Your task to perform on an android device: empty trash in google photos Image 0: 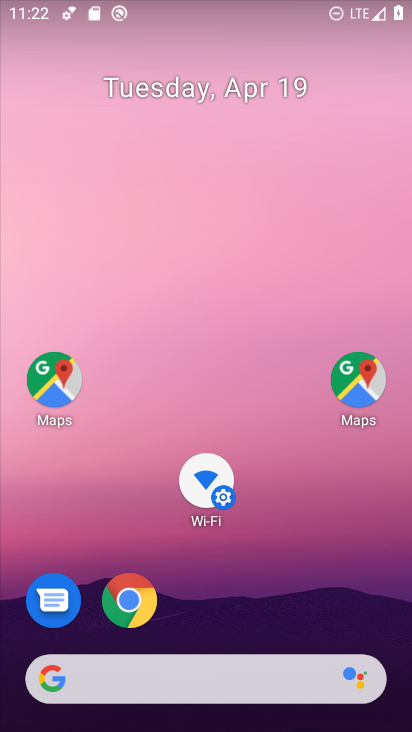
Step 0: drag from (326, 510) to (354, 5)
Your task to perform on an android device: empty trash in google photos Image 1: 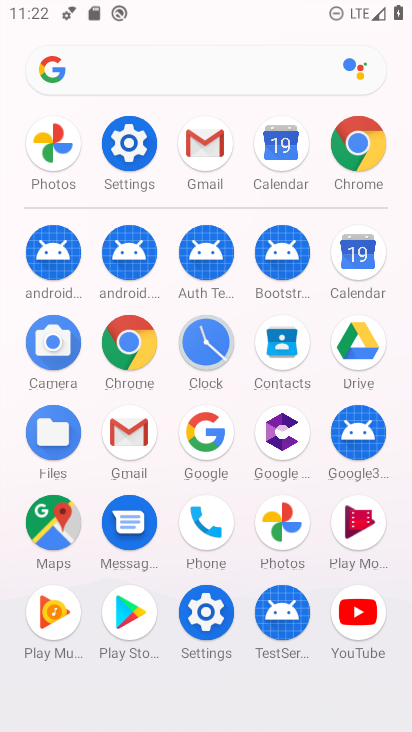
Step 1: click (283, 528)
Your task to perform on an android device: empty trash in google photos Image 2: 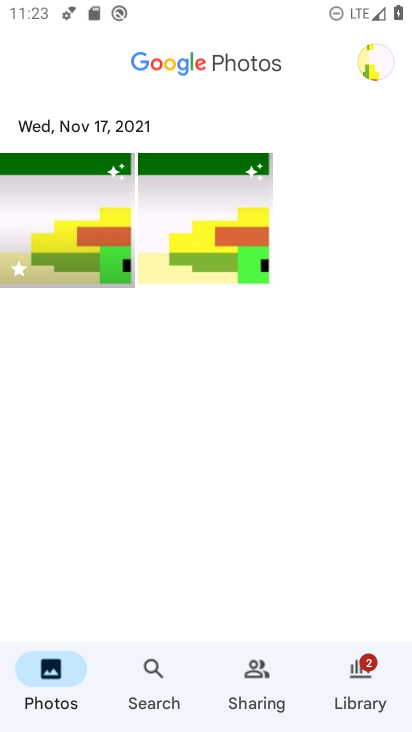
Step 2: click (359, 663)
Your task to perform on an android device: empty trash in google photos Image 3: 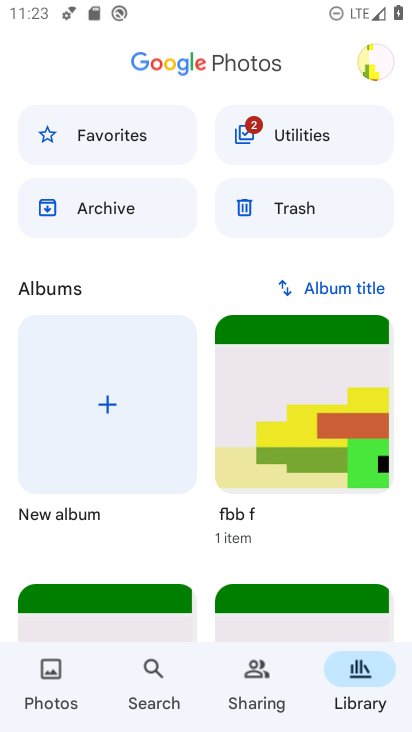
Step 3: click (312, 211)
Your task to perform on an android device: empty trash in google photos Image 4: 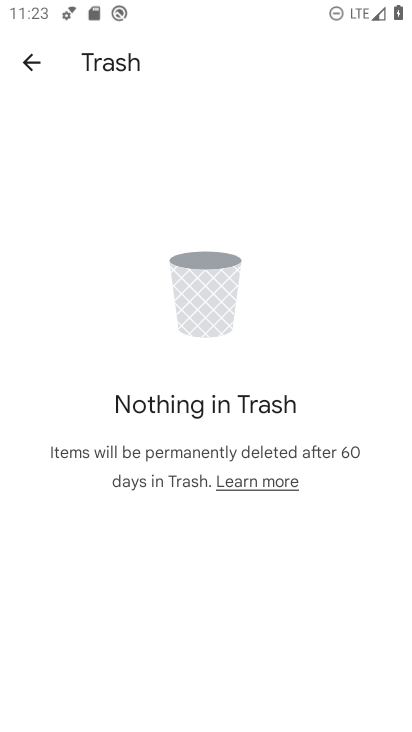
Step 4: task complete